Your task to perform on an android device: Check the news Image 0: 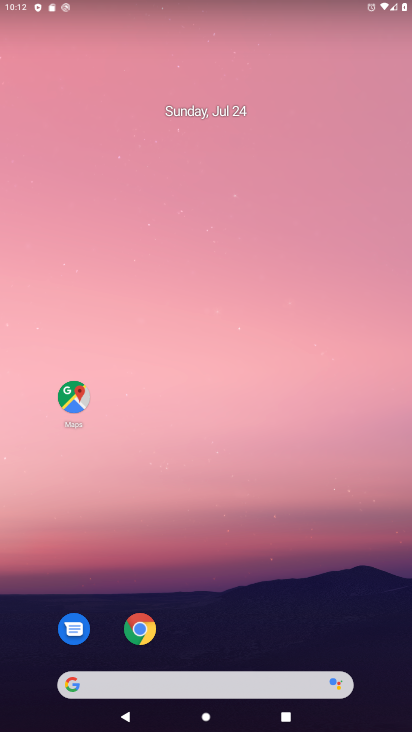
Step 0: drag from (181, 685) to (162, 228)
Your task to perform on an android device: Check the news Image 1: 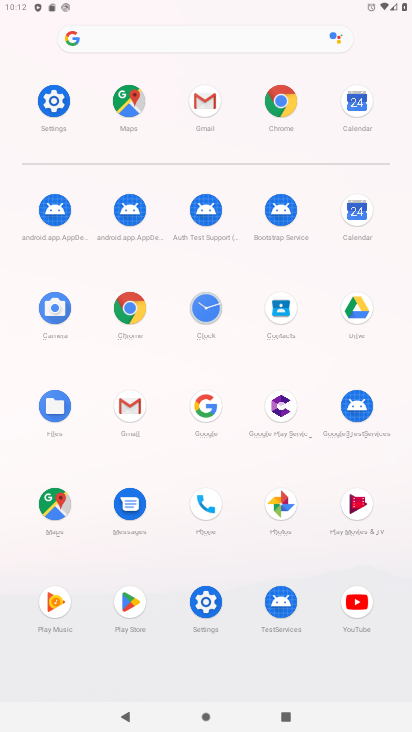
Step 1: click (202, 403)
Your task to perform on an android device: Check the news Image 2: 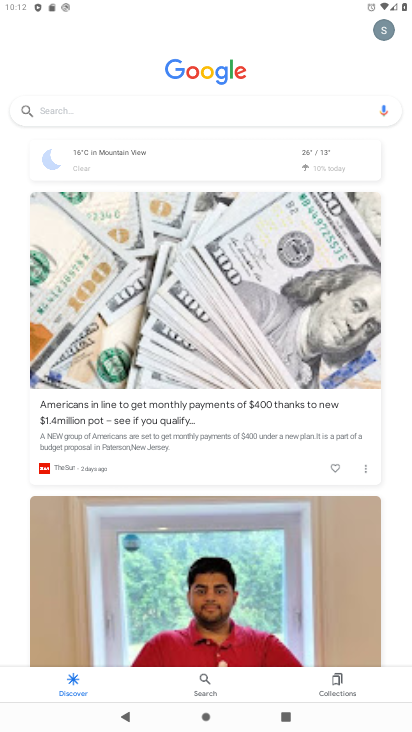
Step 2: click (231, 108)
Your task to perform on an android device: Check the news Image 3: 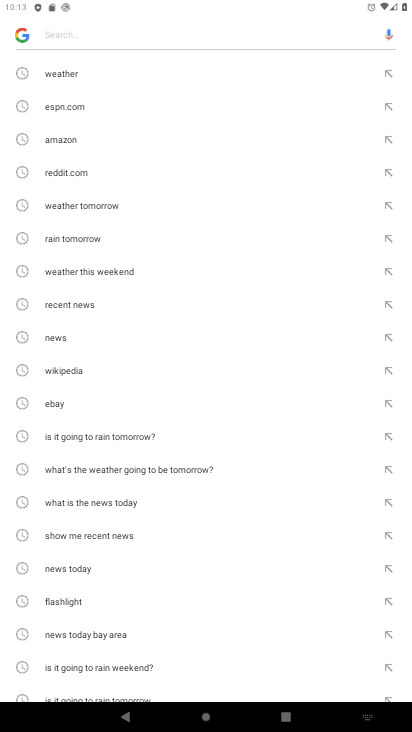
Step 3: type "news"
Your task to perform on an android device: Check the news Image 4: 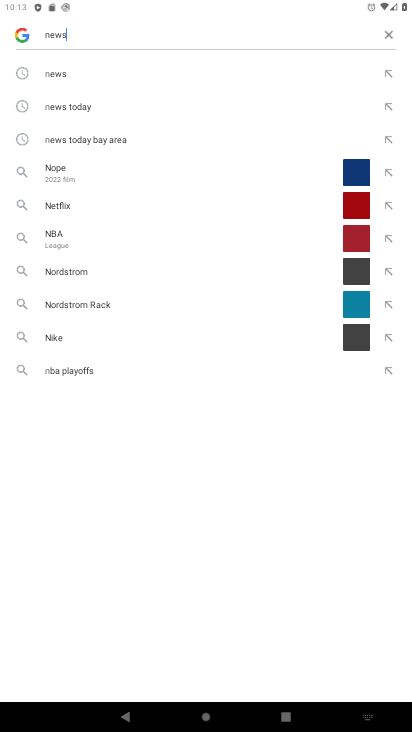
Step 4: type ""
Your task to perform on an android device: Check the news Image 5: 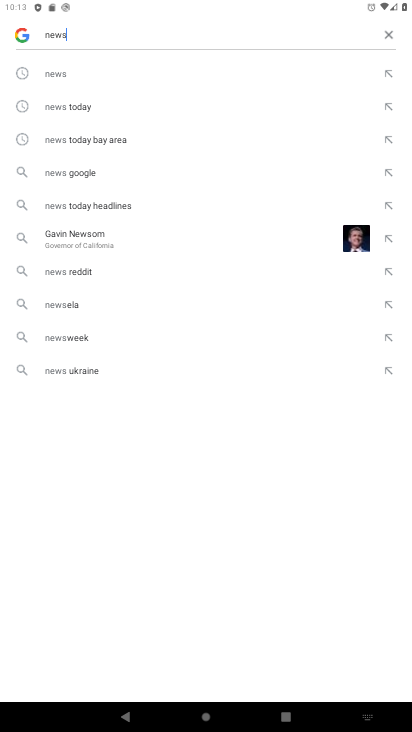
Step 5: click (56, 73)
Your task to perform on an android device: Check the news Image 6: 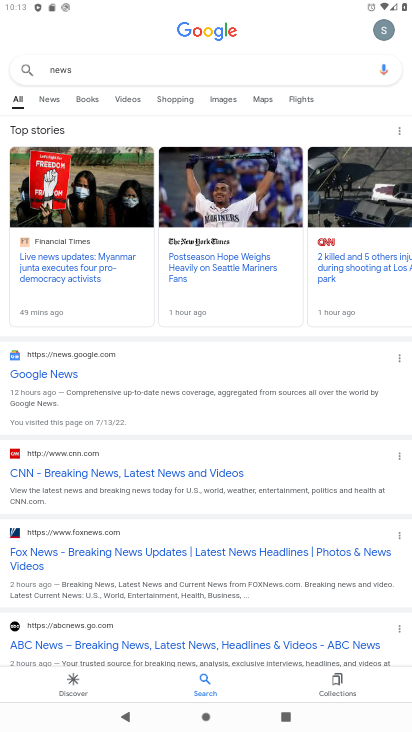
Step 6: click (75, 270)
Your task to perform on an android device: Check the news Image 7: 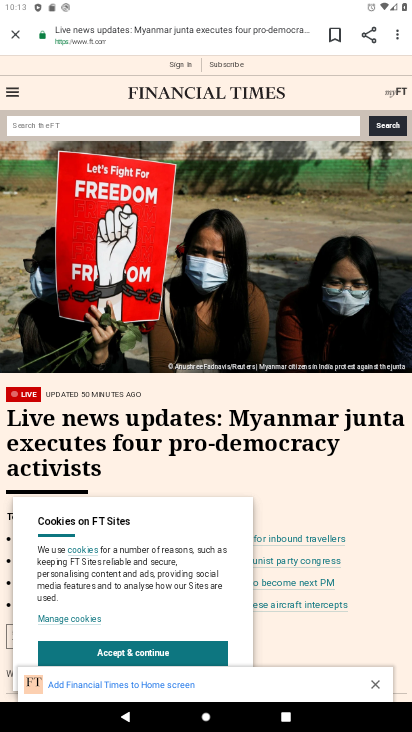
Step 7: task complete